Your task to perform on an android device: Go to Wikipedia Image 0: 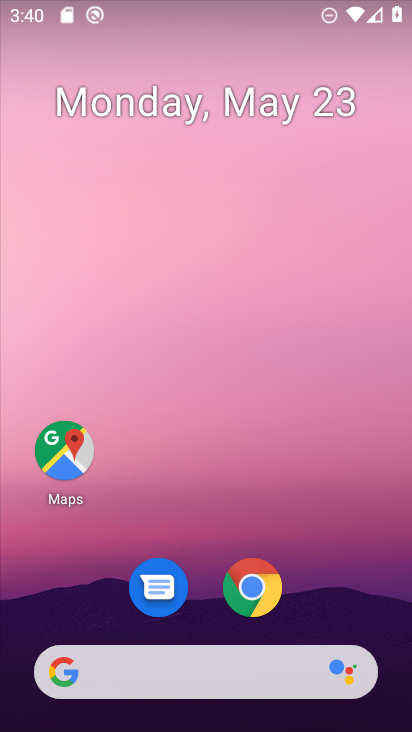
Step 0: click (264, 593)
Your task to perform on an android device: Go to Wikipedia Image 1: 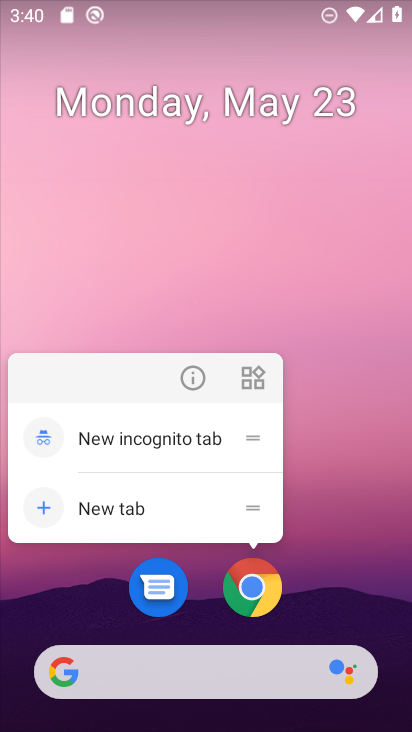
Step 1: click (267, 574)
Your task to perform on an android device: Go to Wikipedia Image 2: 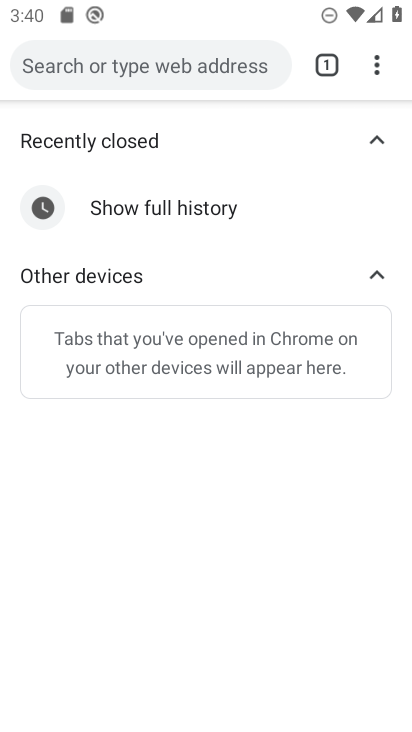
Step 2: click (185, 68)
Your task to perform on an android device: Go to Wikipedia Image 3: 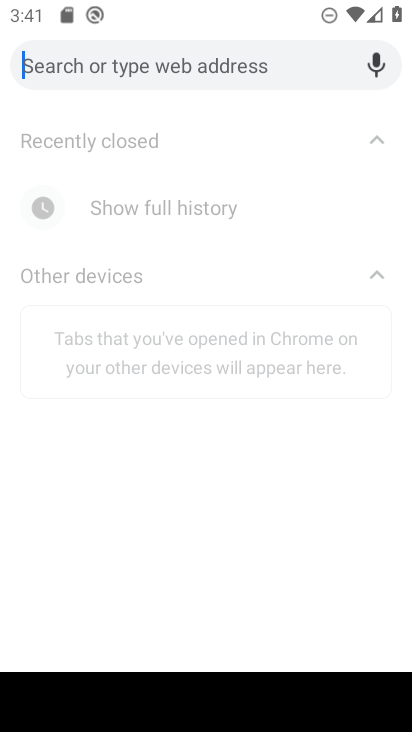
Step 3: type "wikipedia"
Your task to perform on an android device: Go to Wikipedia Image 4: 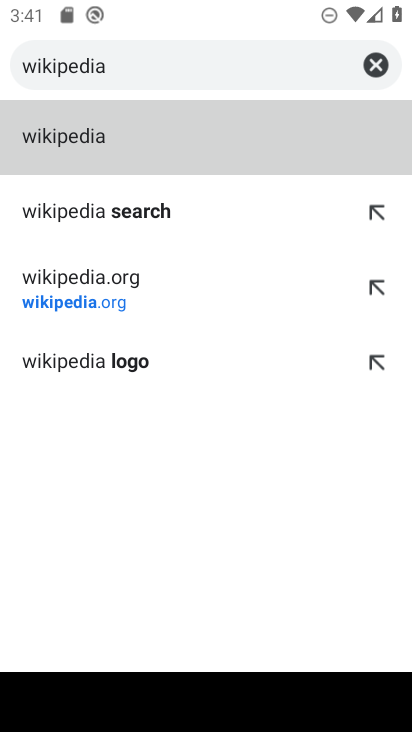
Step 4: click (95, 136)
Your task to perform on an android device: Go to Wikipedia Image 5: 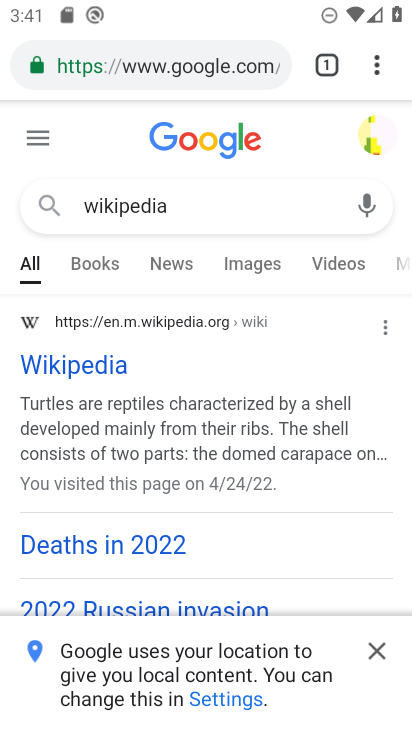
Step 5: task complete